Your task to perform on an android device: toggle notification dots Image 0: 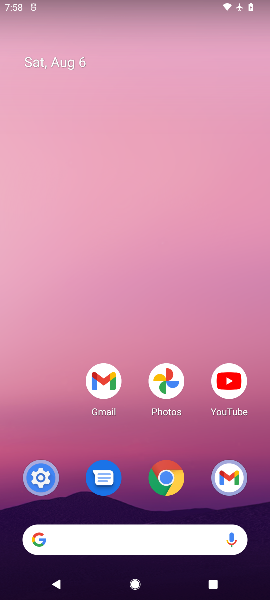
Step 0: press home button
Your task to perform on an android device: toggle notification dots Image 1: 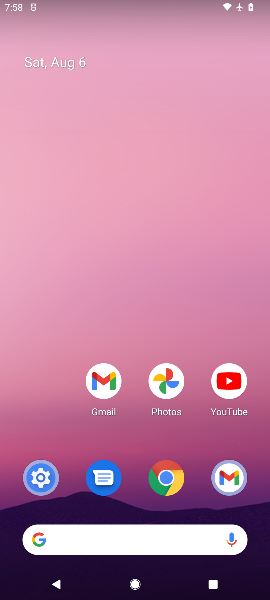
Step 1: click (42, 478)
Your task to perform on an android device: toggle notification dots Image 2: 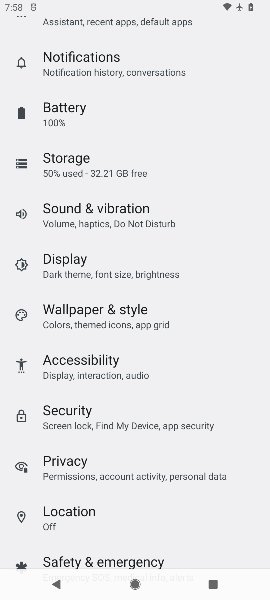
Step 2: click (84, 58)
Your task to perform on an android device: toggle notification dots Image 3: 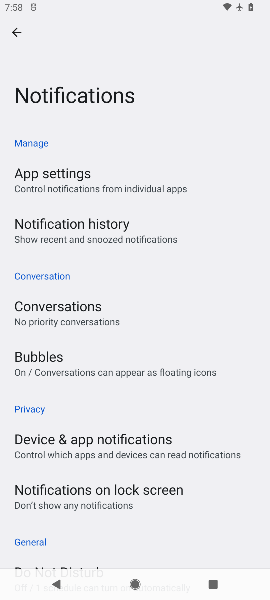
Step 3: task complete